Your task to perform on an android device: allow notifications from all sites in the chrome app Image 0: 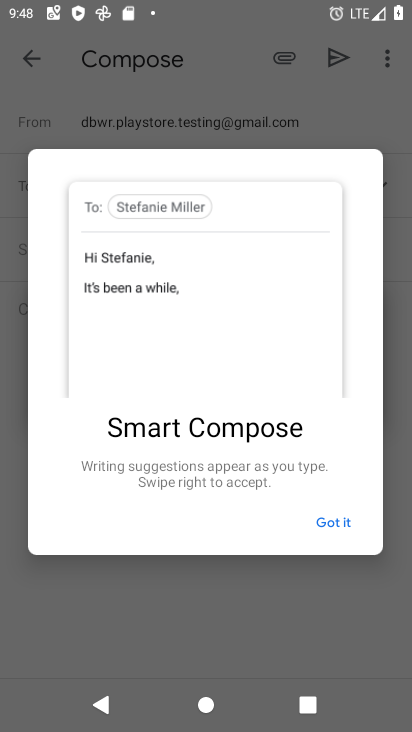
Step 0: press home button
Your task to perform on an android device: allow notifications from all sites in the chrome app Image 1: 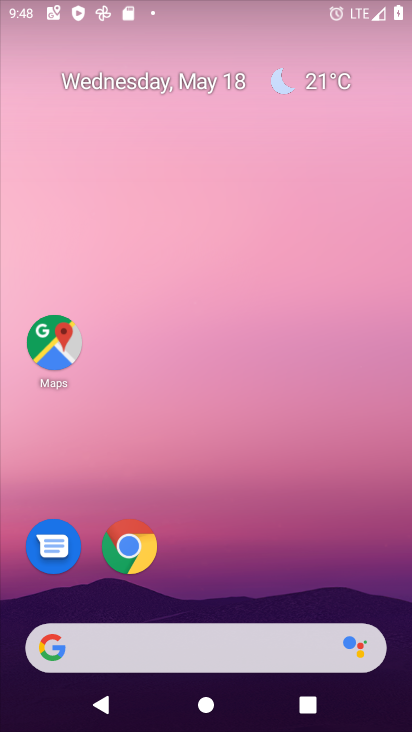
Step 1: drag from (392, 626) to (388, 34)
Your task to perform on an android device: allow notifications from all sites in the chrome app Image 2: 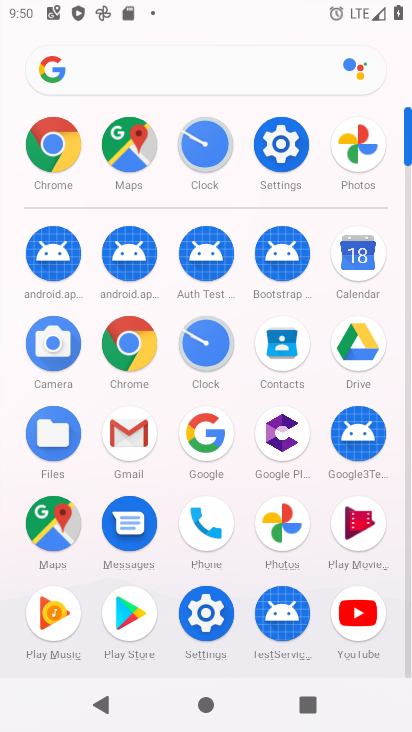
Step 2: click (133, 342)
Your task to perform on an android device: allow notifications from all sites in the chrome app Image 3: 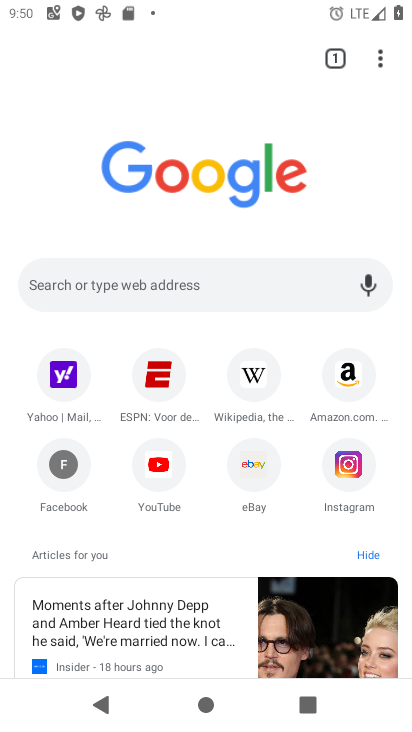
Step 3: click (380, 56)
Your task to perform on an android device: allow notifications from all sites in the chrome app Image 4: 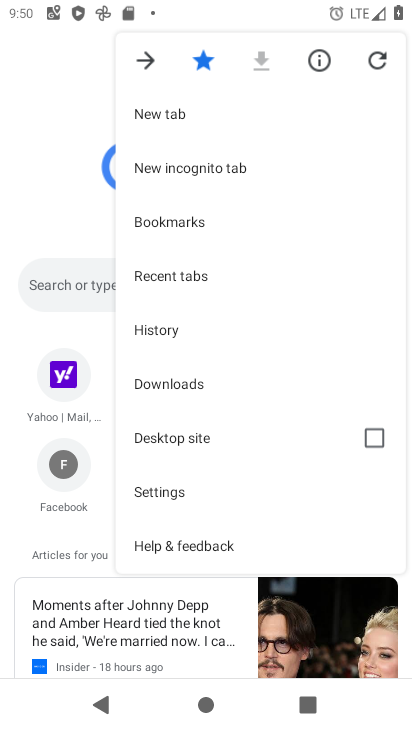
Step 4: click (195, 484)
Your task to perform on an android device: allow notifications from all sites in the chrome app Image 5: 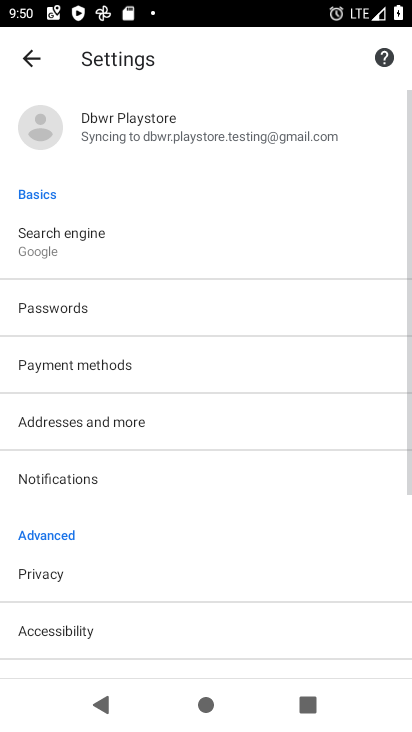
Step 5: click (111, 473)
Your task to perform on an android device: allow notifications from all sites in the chrome app Image 6: 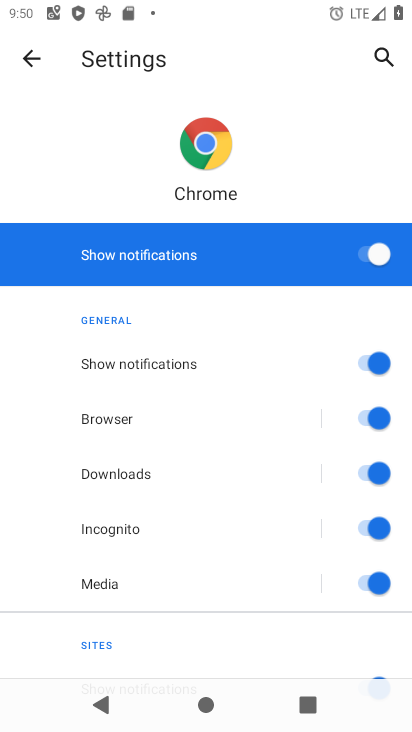
Step 6: task complete